Your task to perform on an android device: Go to Amazon Image 0: 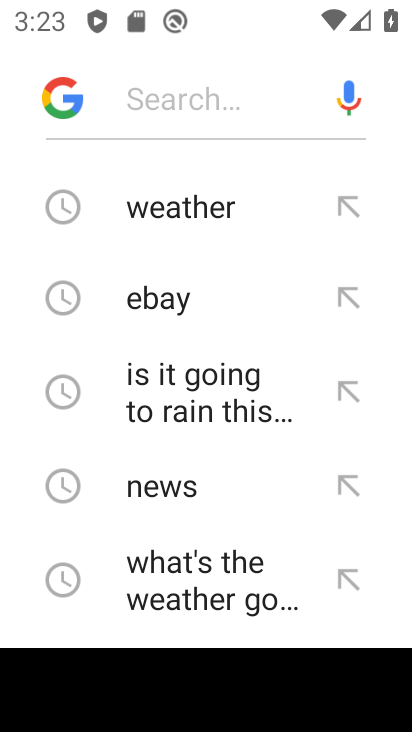
Step 0: press home button
Your task to perform on an android device: Go to Amazon Image 1: 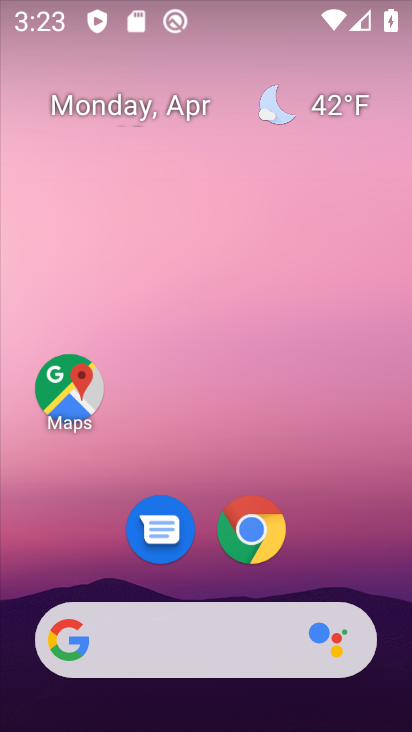
Step 1: click (264, 525)
Your task to perform on an android device: Go to Amazon Image 2: 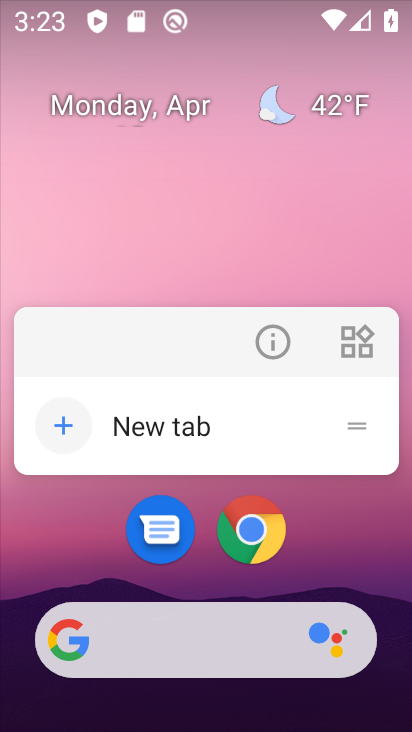
Step 2: click (252, 532)
Your task to perform on an android device: Go to Amazon Image 3: 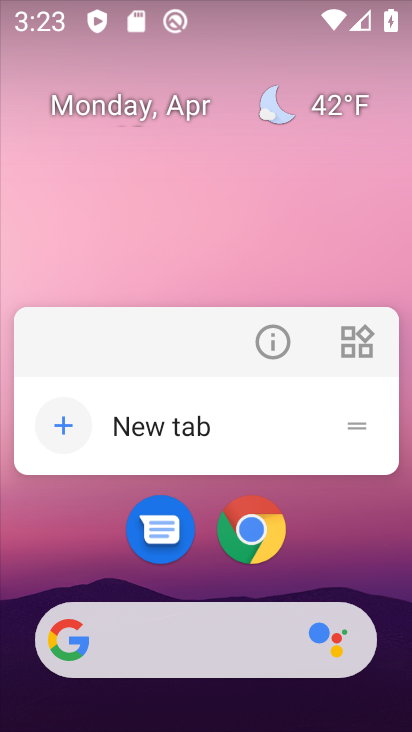
Step 3: click (255, 532)
Your task to perform on an android device: Go to Amazon Image 4: 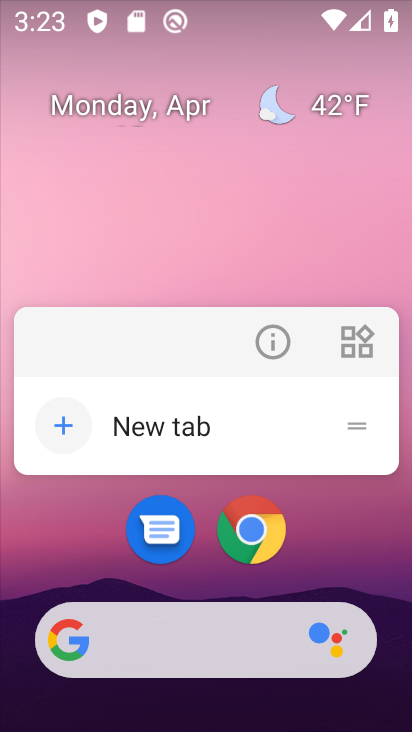
Step 4: click (157, 429)
Your task to perform on an android device: Go to Amazon Image 5: 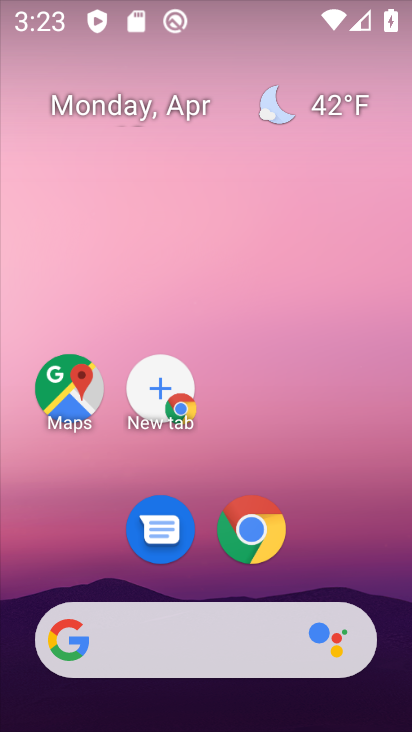
Step 5: click (168, 403)
Your task to perform on an android device: Go to Amazon Image 6: 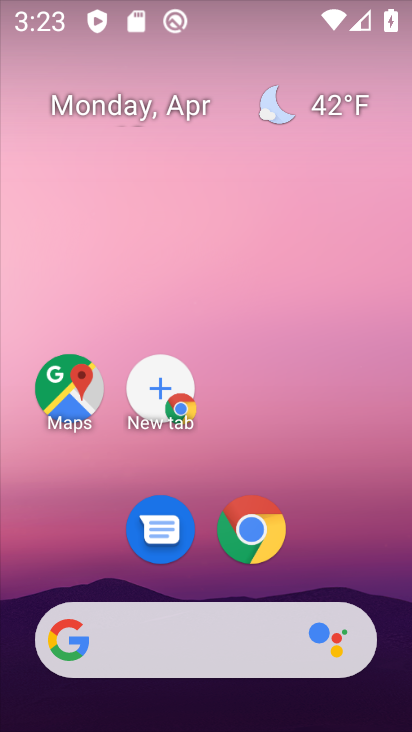
Step 6: click (250, 548)
Your task to perform on an android device: Go to Amazon Image 7: 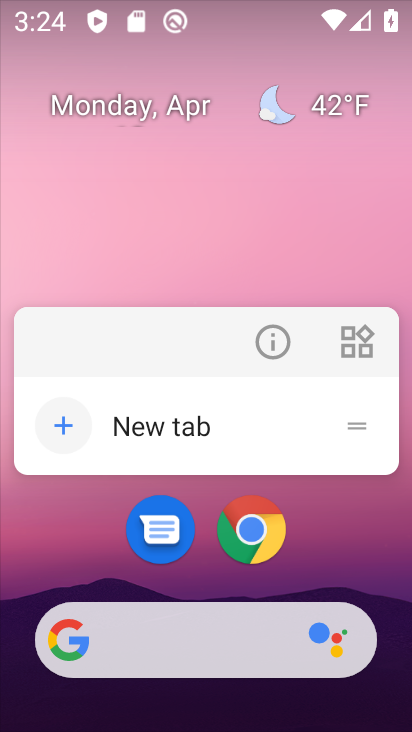
Step 7: click (256, 524)
Your task to perform on an android device: Go to Amazon Image 8: 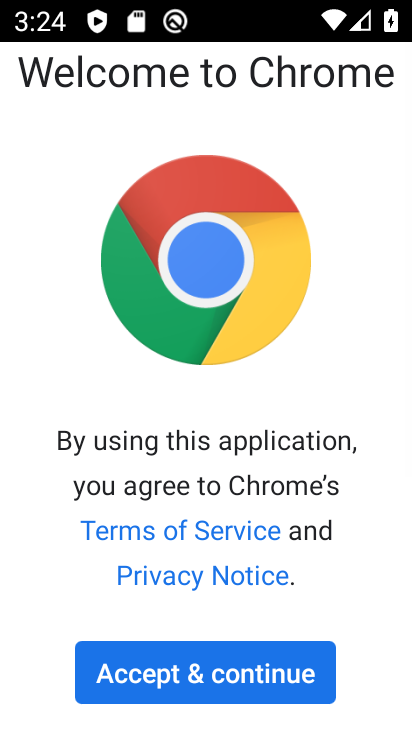
Step 8: click (195, 669)
Your task to perform on an android device: Go to Amazon Image 9: 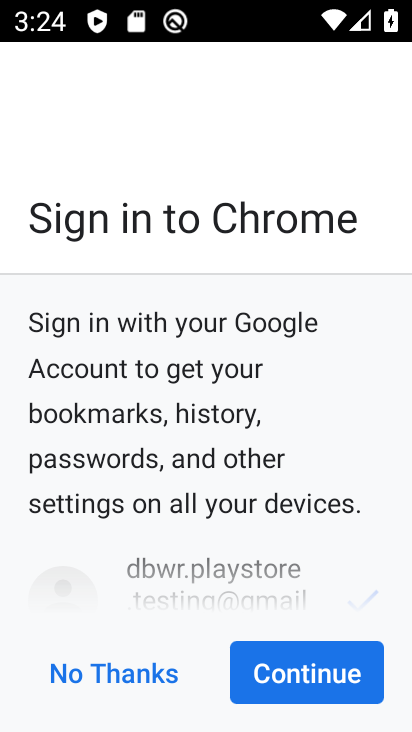
Step 9: click (281, 679)
Your task to perform on an android device: Go to Amazon Image 10: 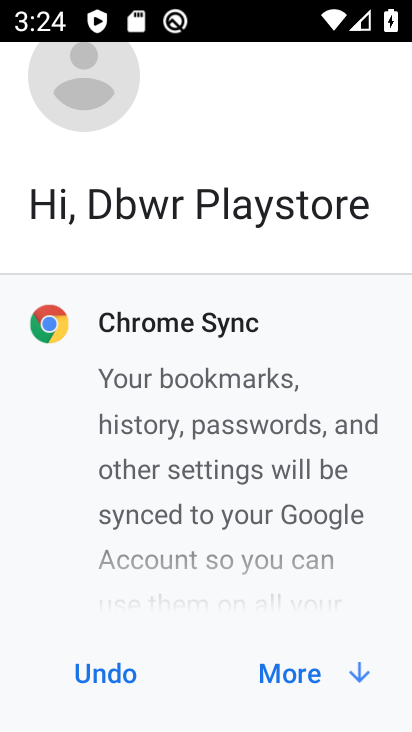
Step 10: click (282, 683)
Your task to perform on an android device: Go to Amazon Image 11: 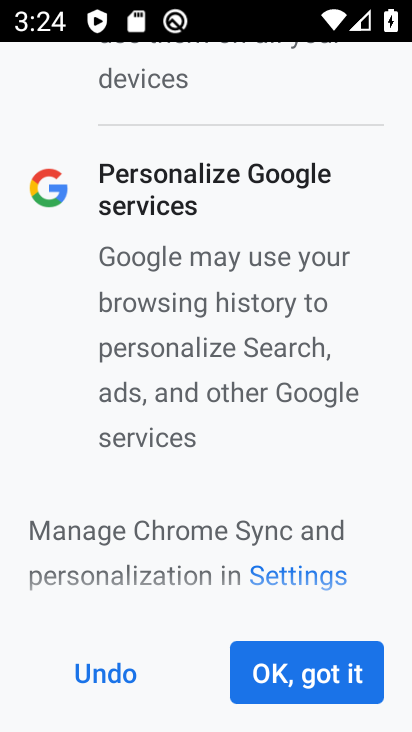
Step 11: click (297, 677)
Your task to perform on an android device: Go to Amazon Image 12: 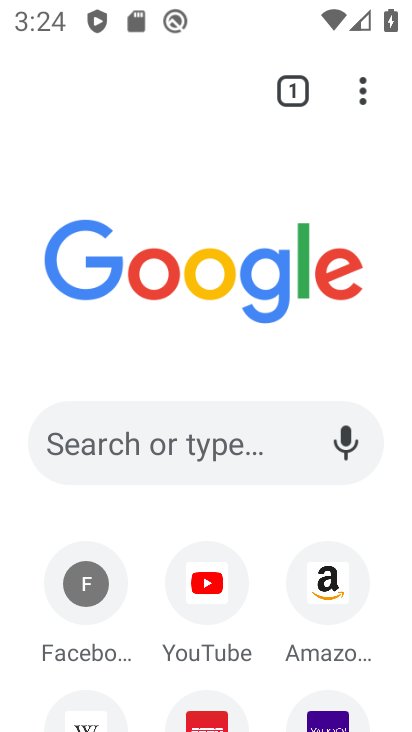
Step 12: click (319, 586)
Your task to perform on an android device: Go to Amazon Image 13: 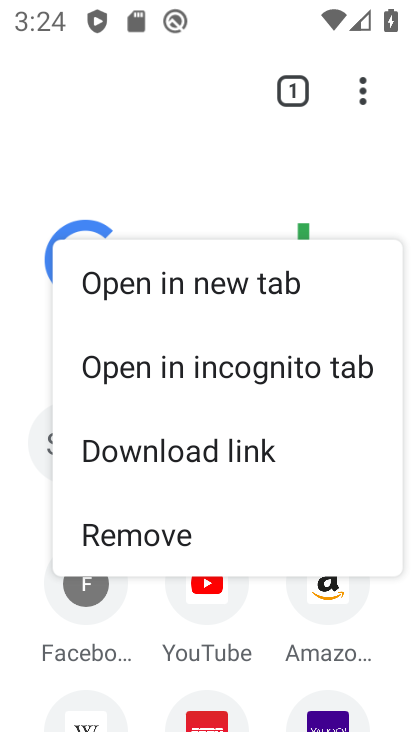
Step 13: click (329, 596)
Your task to perform on an android device: Go to Amazon Image 14: 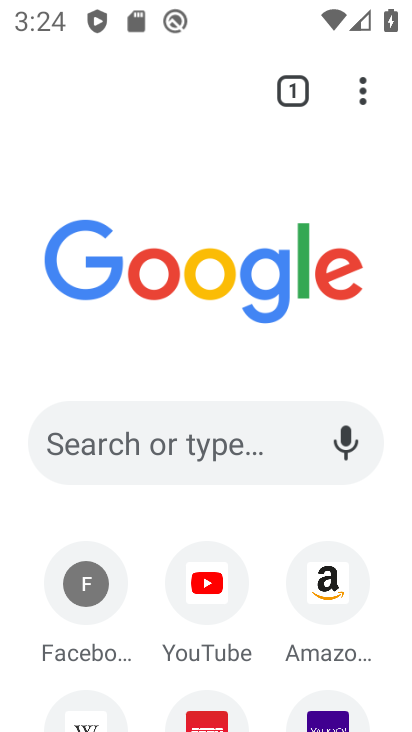
Step 14: click (324, 580)
Your task to perform on an android device: Go to Amazon Image 15: 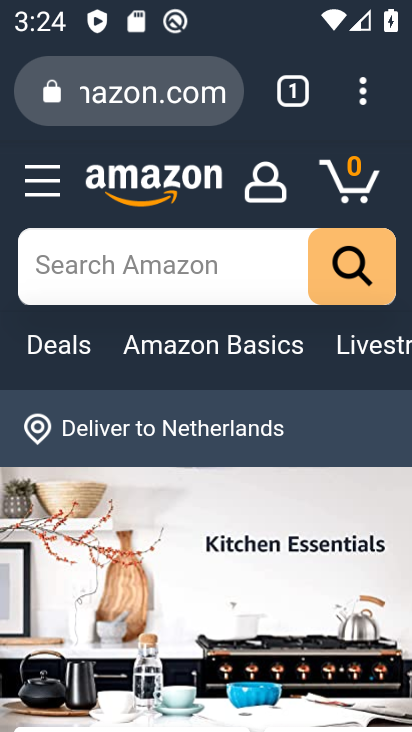
Step 15: task complete